Your task to perform on an android device: Go to wifi settings Image 0: 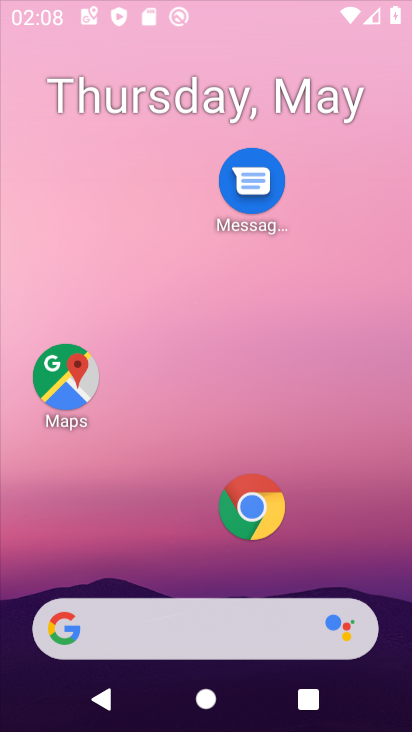
Step 0: drag from (291, 616) to (313, 0)
Your task to perform on an android device: Go to wifi settings Image 1: 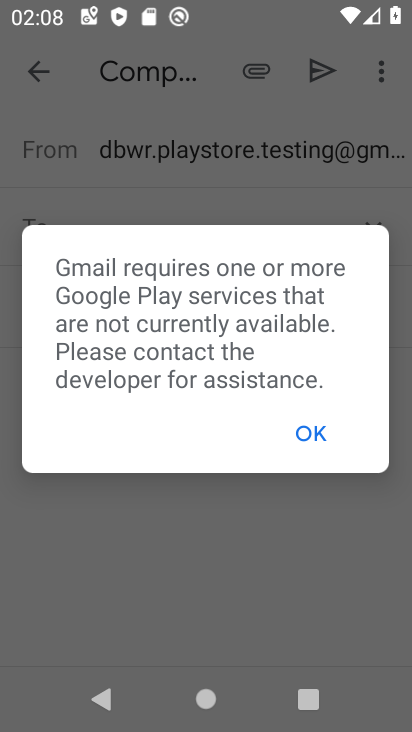
Step 1: press home button
Your task to perform on an android device: Go to wifi settings Image 2: 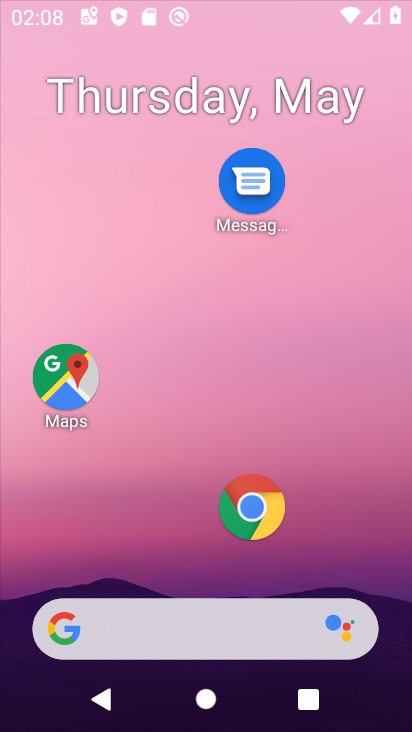
Step 2: drag from (300, 572) to (404, 249)
Your task to perform on an android device: Go to wifi settings Image 3: 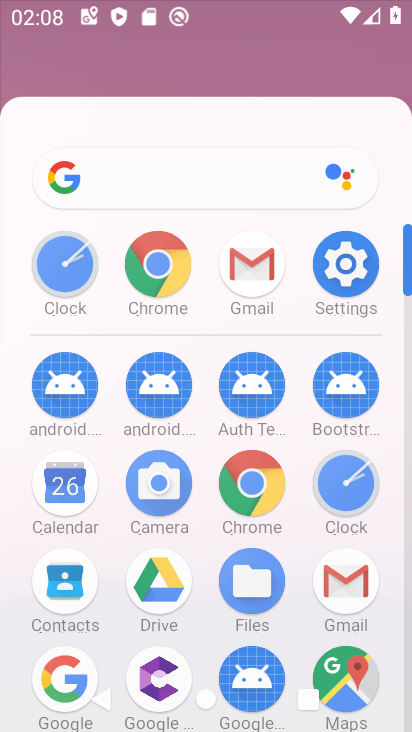
Step 3: click (356, 181)
Your task to perform on an android device: Go to wifi settings Image 4: 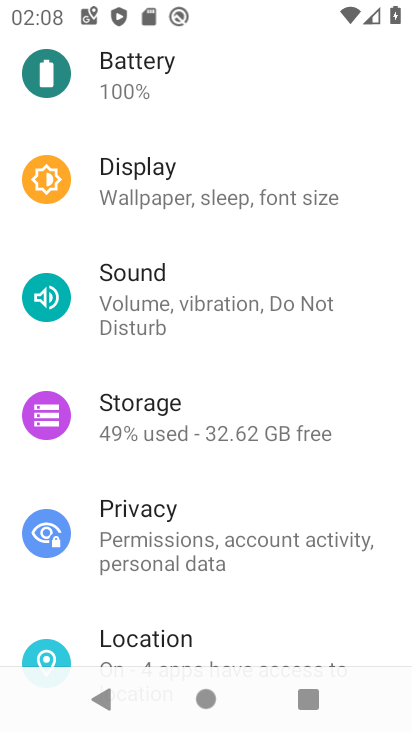
Step 4: drag from (239, 245) to (188, 730)
Your task to perform on an android device: Go to wifi settings Image 5: 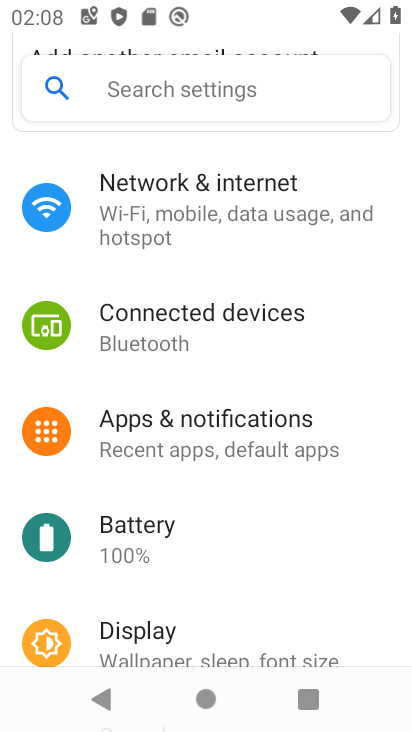
Step 5: click (154, 228)
Your task to perform on an android device: Go to wifi settings Image 6: 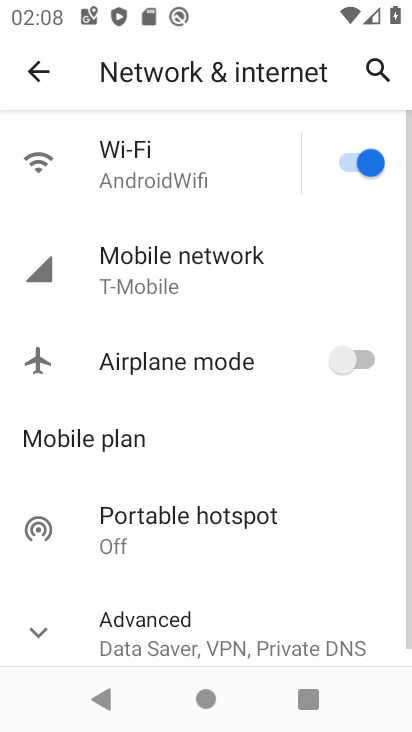
Step 6: click (171, 179)
Your task to perform on an android device: Go to wifi settings Image 7: 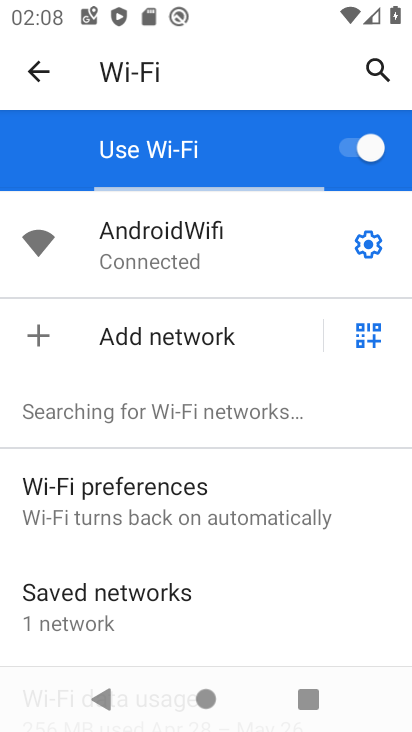
Step 7: task complete